Your task to perform on an android device: turn on showing notifications on the lock screen Image 0: 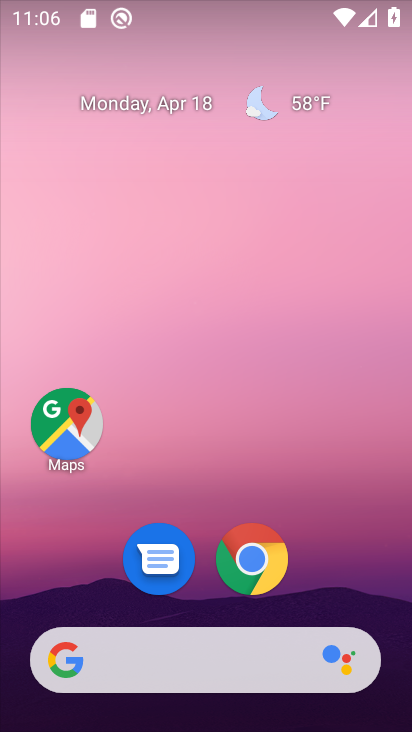
Step 0: drag from (350, 461) to (305, 87)
Your task to perform on an android device: turn on showing notifications on the lock screen Image 1: 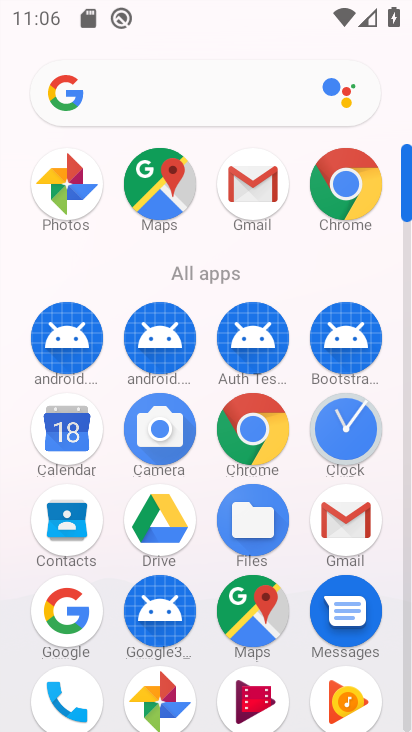
Step 1: drag from (201, 615) to (206, 238)
Your task to perform on an android device: turn on showing notifications on the lock screen Image 2: 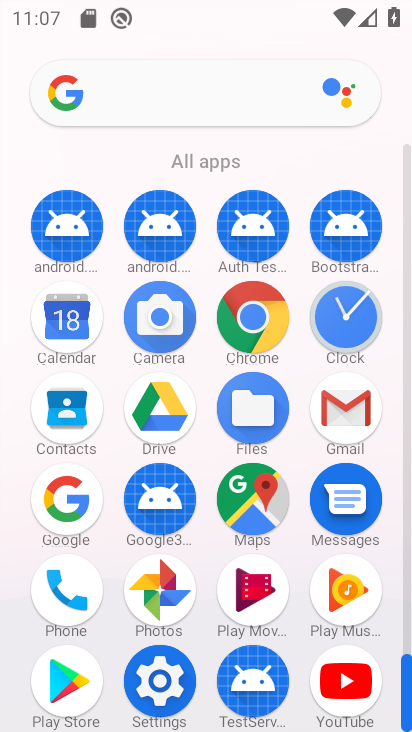
Step 2: click (162, 686)
Your task to perform on an android device: turn on showing notifications on the lock screen Image 3: 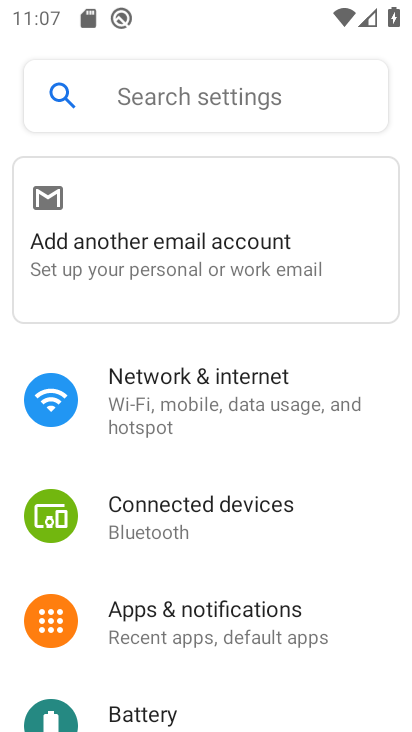
Step 3: click (187, 608)
Your task to perform on an android device: turn on showing notifications on the lock screen Image 4: 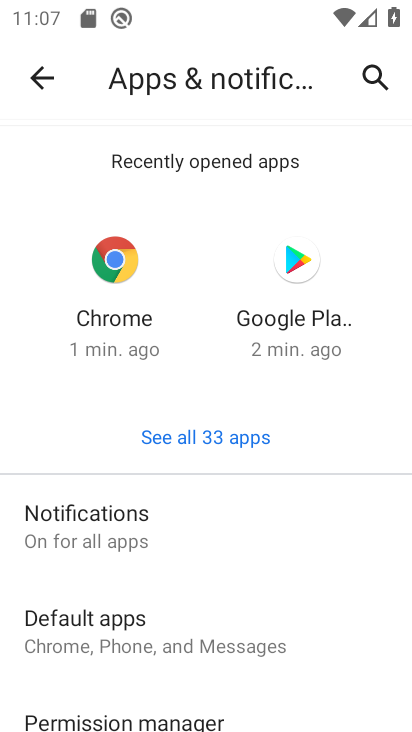
Step 4: drag from (147, 697) to (168, 383)
Your task to perform on an android device: turn on showing notifications on the lock screen Image 5: 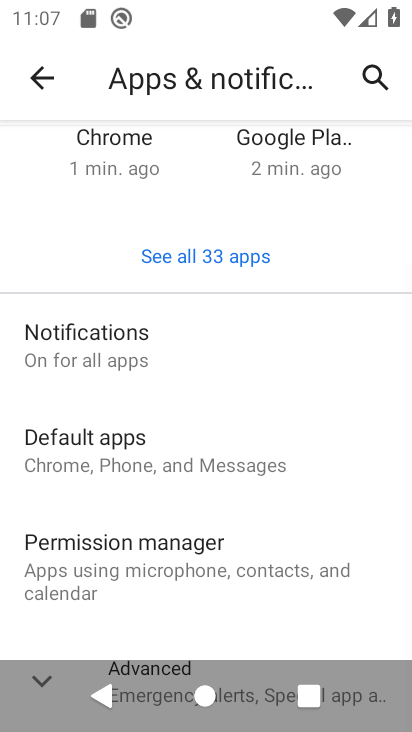
Step 5: click (45, 351)
Your task to perform on an android device: turn on showing notifications on the lock screen Image 6: 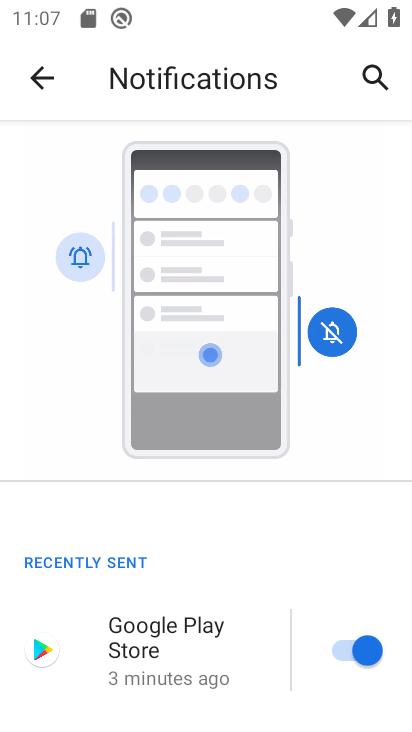
Step 6: drag from (103, 652) to (116, 269)
Your task to perform on an android device: turn on showing notifications on the lock screen Image 7: 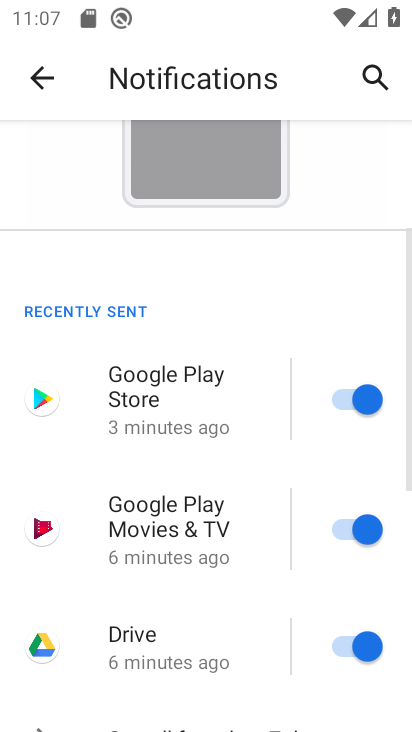
Step 7: drag from (119, 638) to (93, 169)
Your task to perform on an android device: turn on showing notifications on the lock screen Image 8: 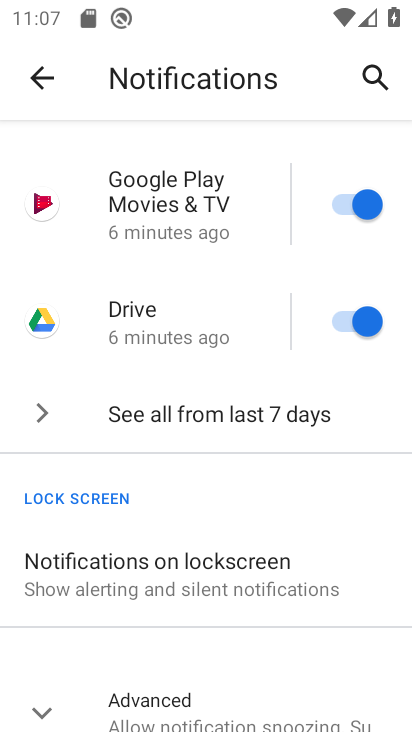
Step 8: click (167, 573)
Your task to perform on an android device: turn on showing notifications on the lock screen Image 9: 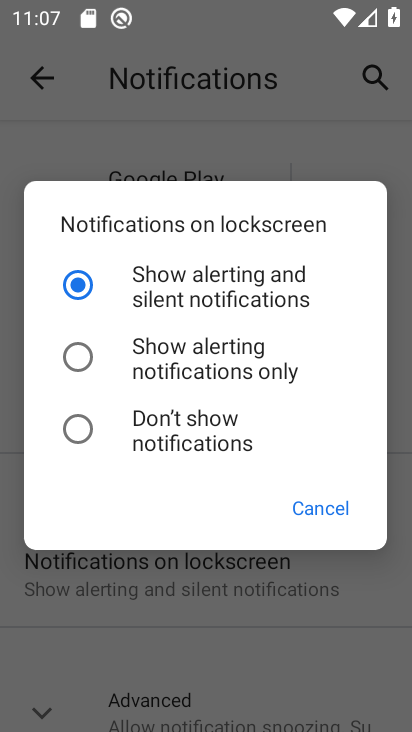
Step 9: task complete